Your task to perform on an android device: Go to eBay Image 0: 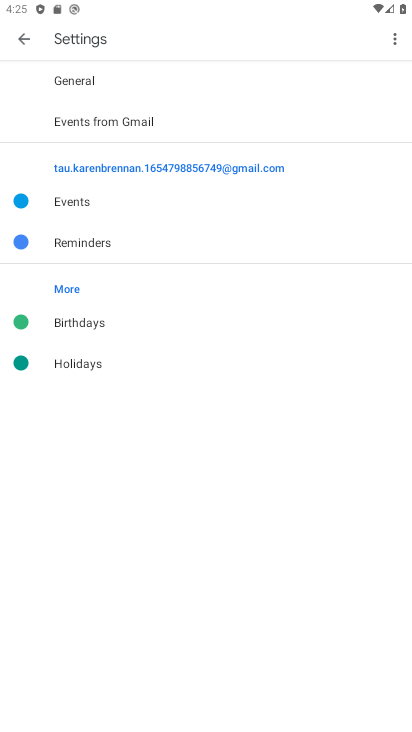
Step 0: press home button
Your task to perform on an android device: Go to eBay Image 1: 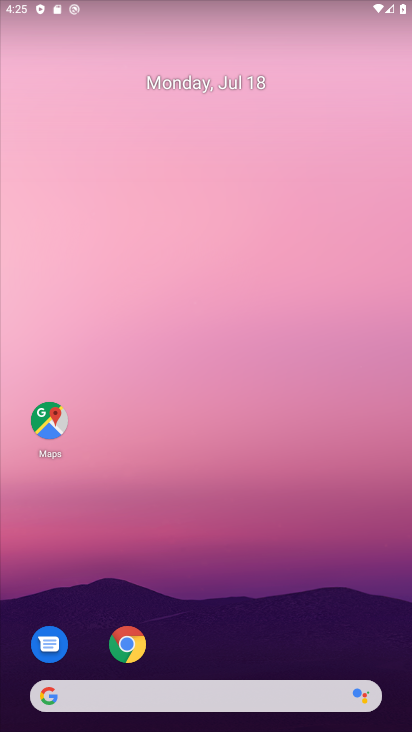
Step 1: click (124, 645)
Your task to perform on an android device: Go to eBay Image 2: 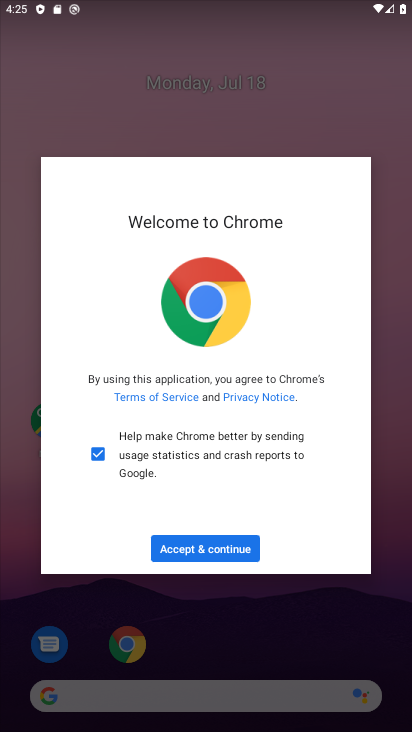
Step 2: click (236, 547)
Your task to perform on an android device: Go to eBay Image 3: 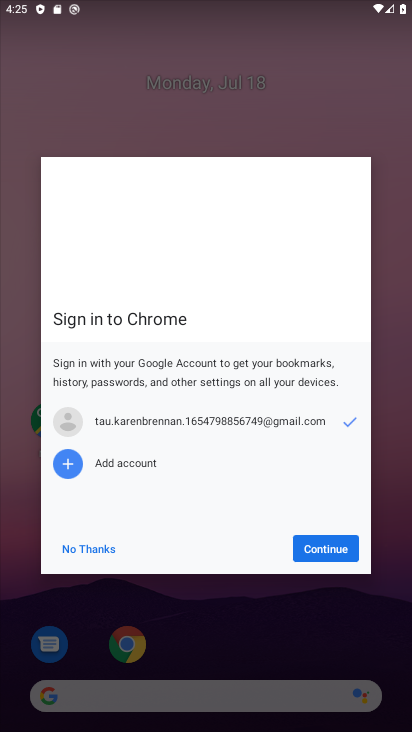
Step 3: click (349, 550)
Your task to perform on an android device: Go to eBay Image 4: 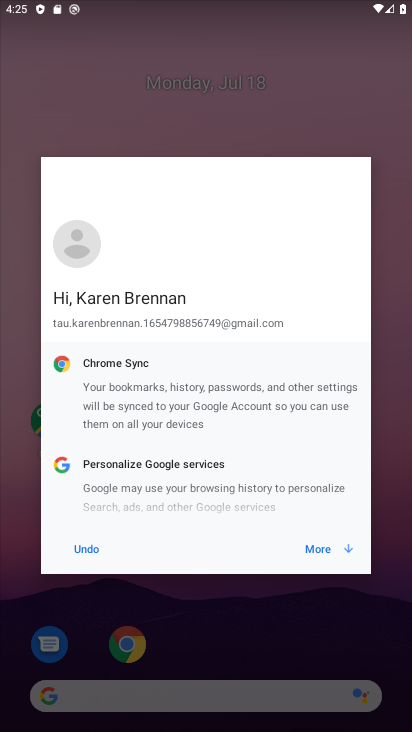
Step 4: click (347, 550)
Your task to perform on an android device: Go to eBay Image 5: 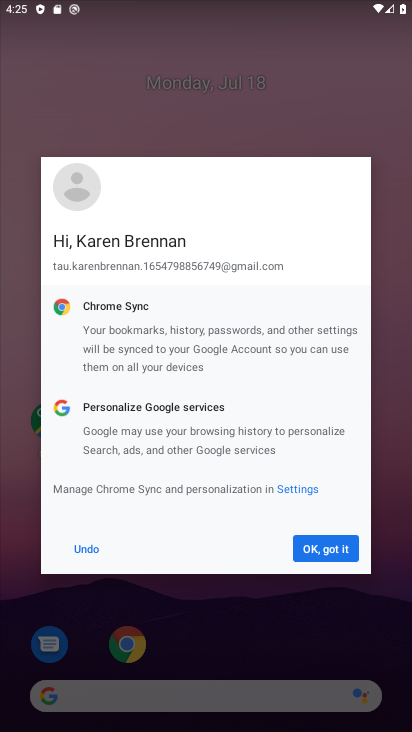
Step 5: click (347, 550)
Your task to perform on an android device: Go to eBay Image 6: 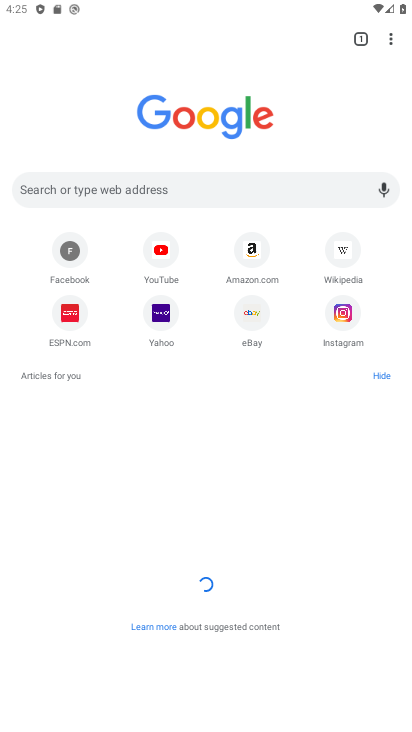
Step 6: click (253, 333)
Your task to perform on an android device: Go to eBay Image 7: 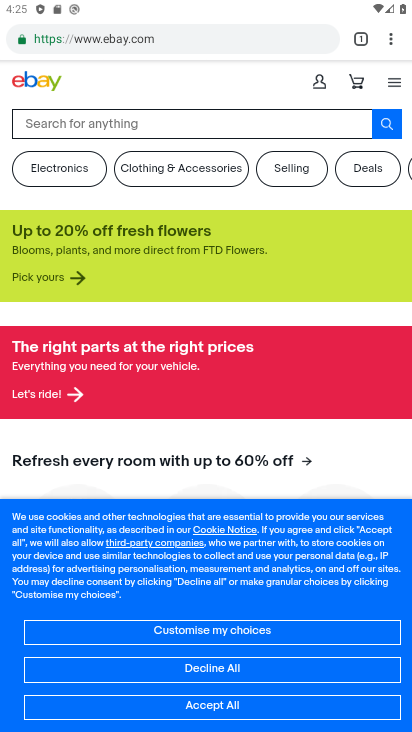
Step 7: task complete